Your task to perform on an android device: turn off location Image 0: 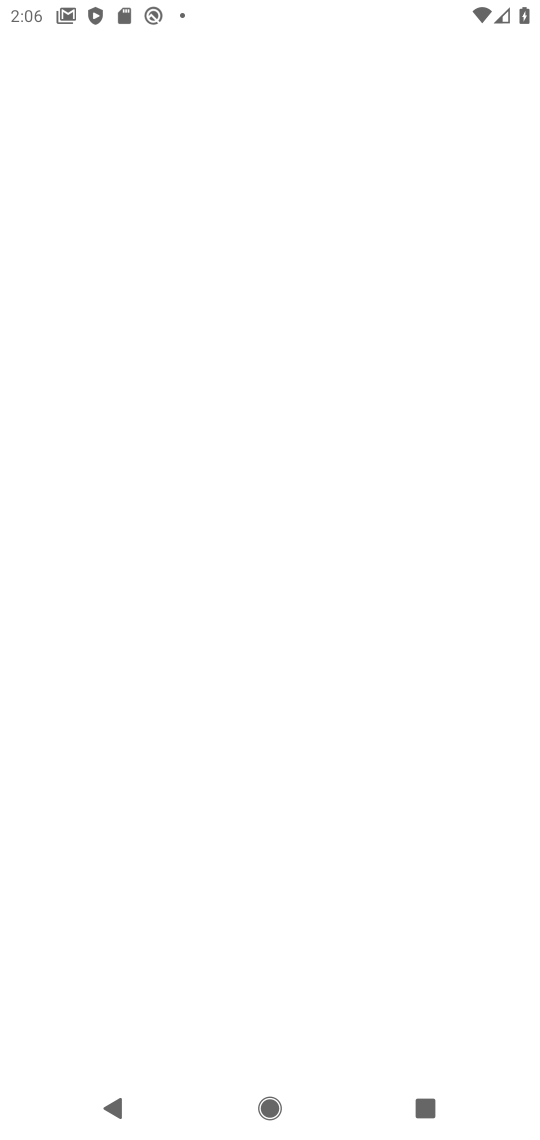
Step 0: press home button
Your task to perform on an android device: turn off location Image 1: 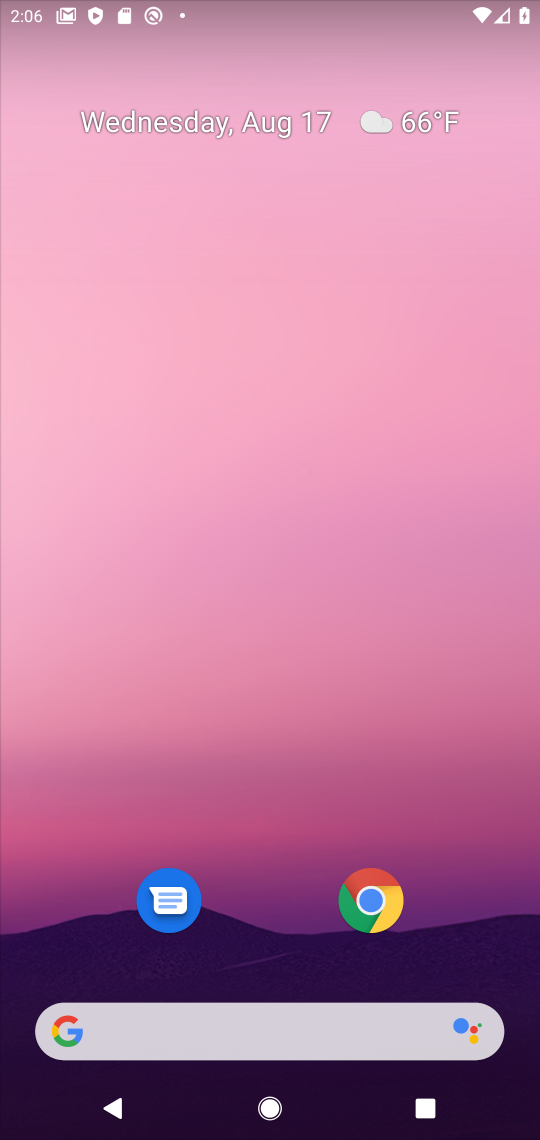
Step 1: drag from (259, 1036) to (338, 39)
Your task to perform on an android device: turn off location Image 2: 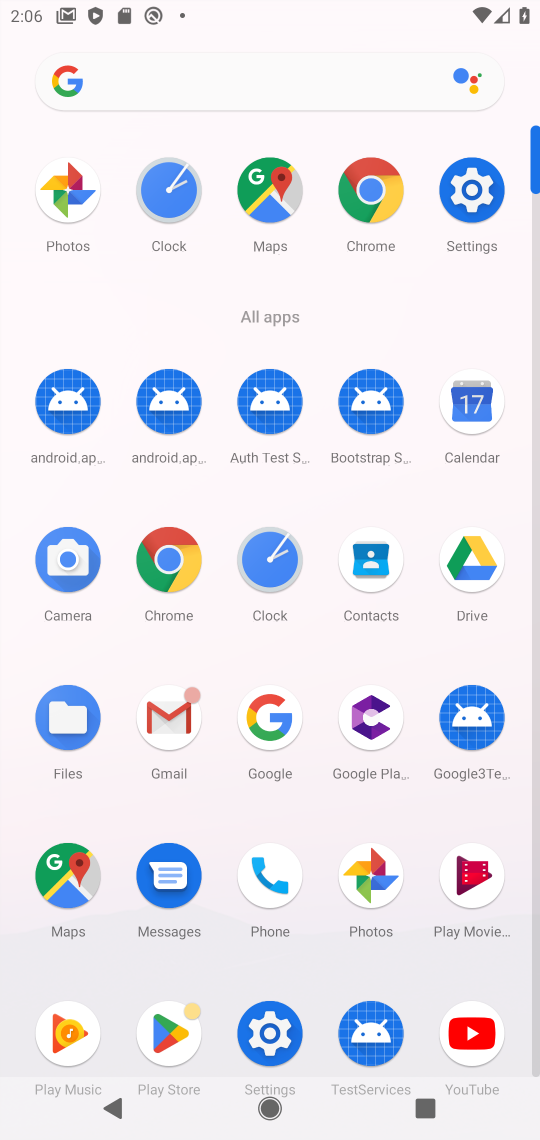
Step 2: click (472, 202)
Your task to perform on an android device: turn off location Image 3: 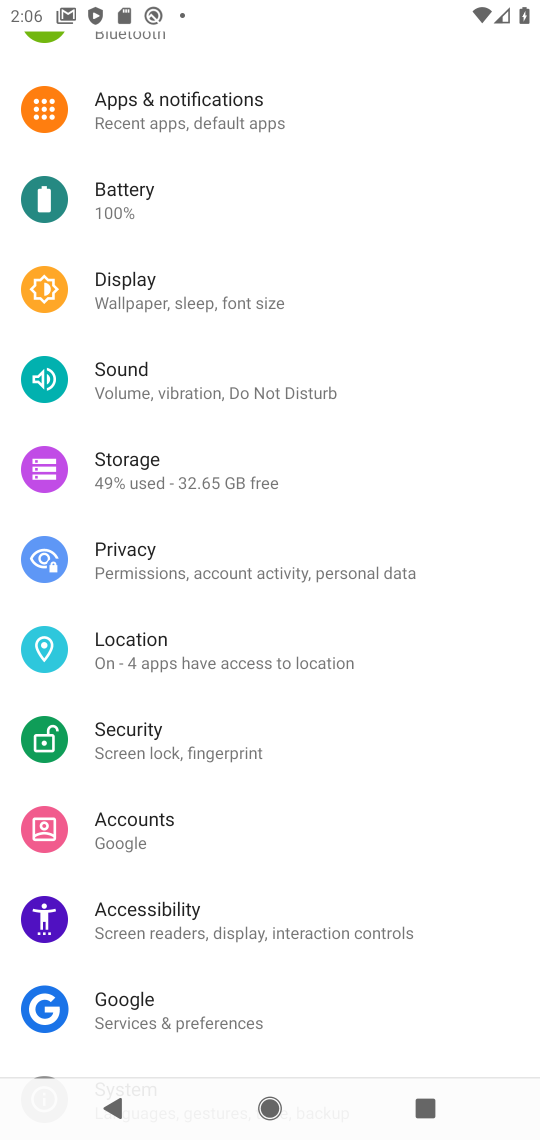
Step 3: click (137, 646)
Your task to perform on an android device: turn off location Image 4: 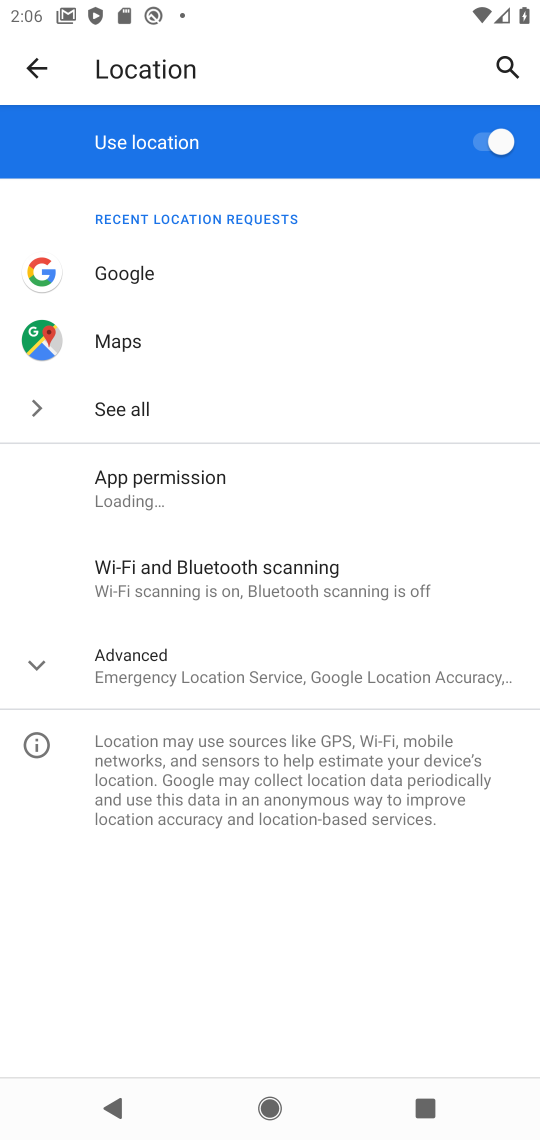
Step 4: click (477, 128)
Your task to perform on an android device: turn off location Image 5: 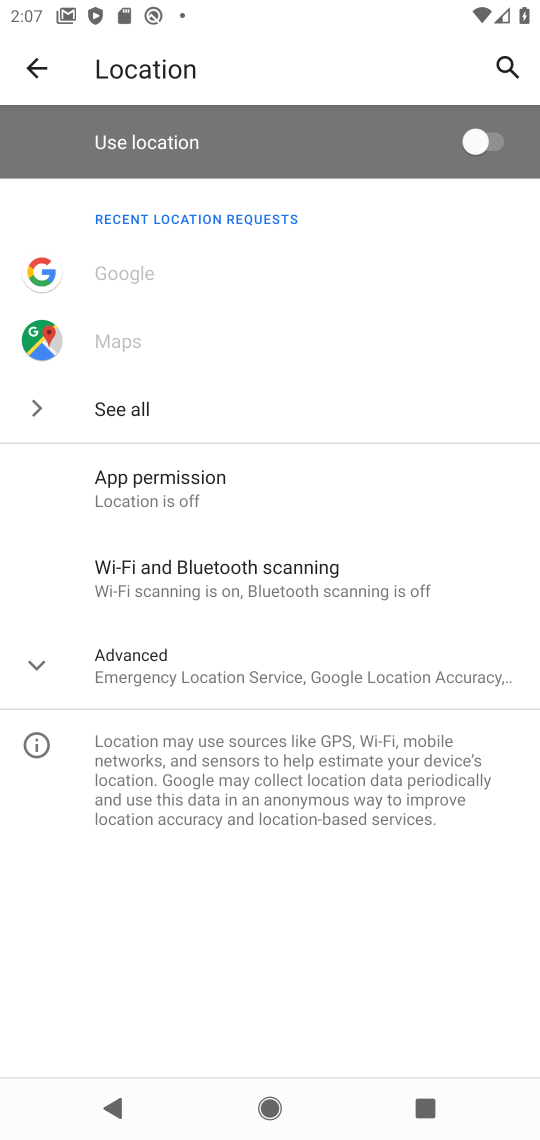
Step 5: task complete